Your task to perform on an android device: Open Google Maps Image 0: 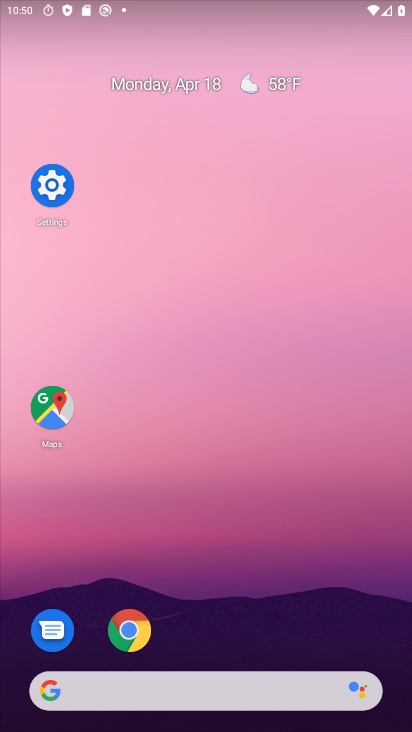
Step 0: click (51, 401)
Your task to perform on an android device: Open Google Maps Image 1: 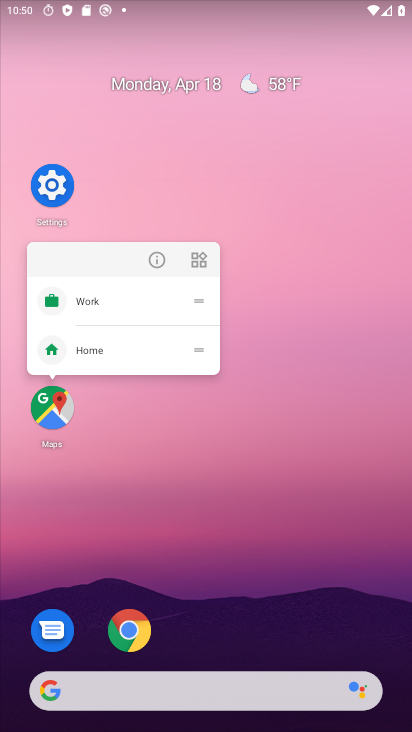
Step 1: click (48, 423)
Your task to perform on an android device: Open Google Maps Image 2: 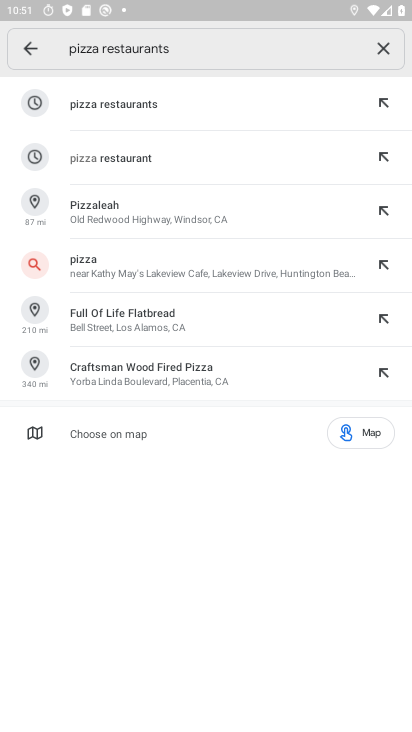
Step 2: task complete